Your task to perform on an android device: Open maps Image 0: 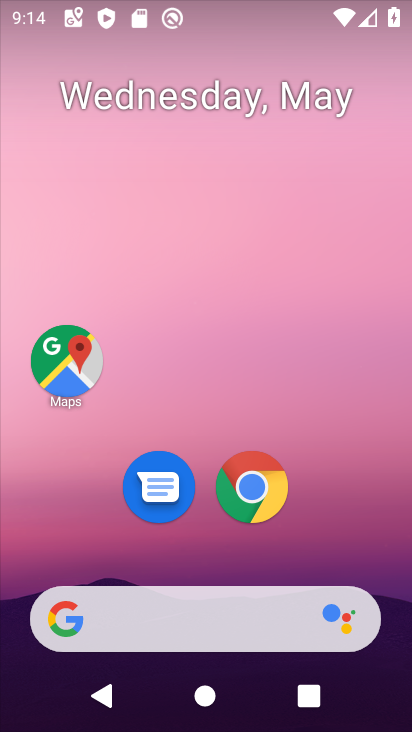
Step 0: click (59, 372)
Your task to perform on an android device: Open maps Image 1: 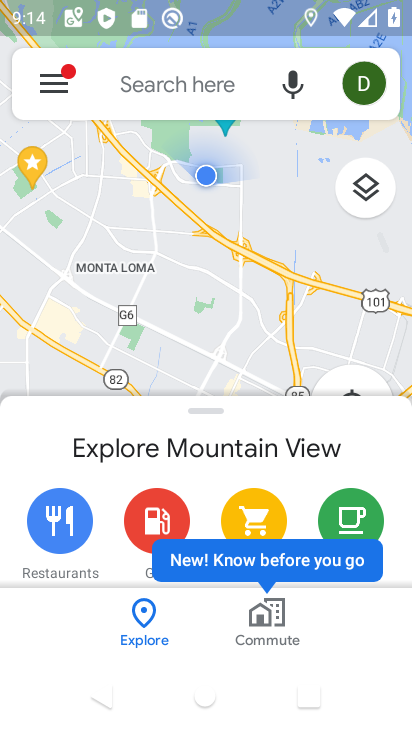
Step 1: task complete